Your task to perform on an android device: What's the weather going to be this weekend? Image 0: 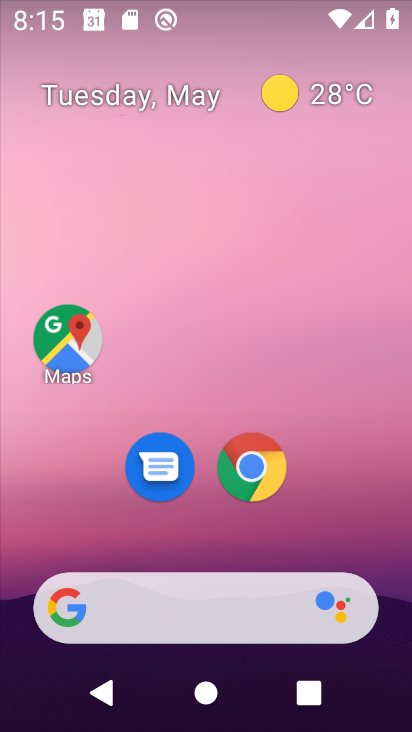
Step 0: click (325, 92)
Your task to perform on an android device: What's the weather going to be this weekend? Image 1: 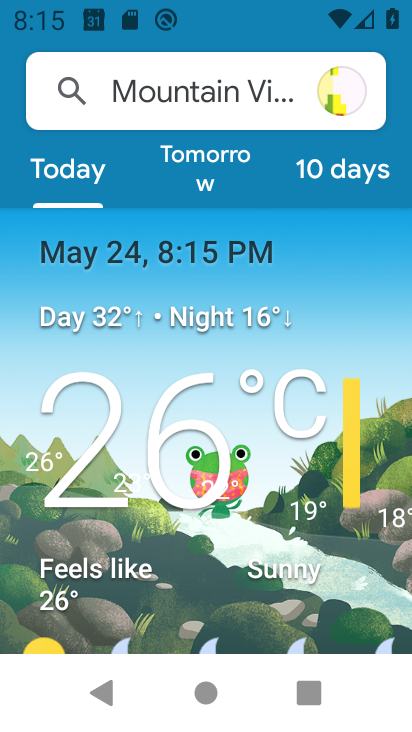
Step 1: click (337, 170)
Your task to perform on an android device: What's the weather going to be this weekend? Image 2: 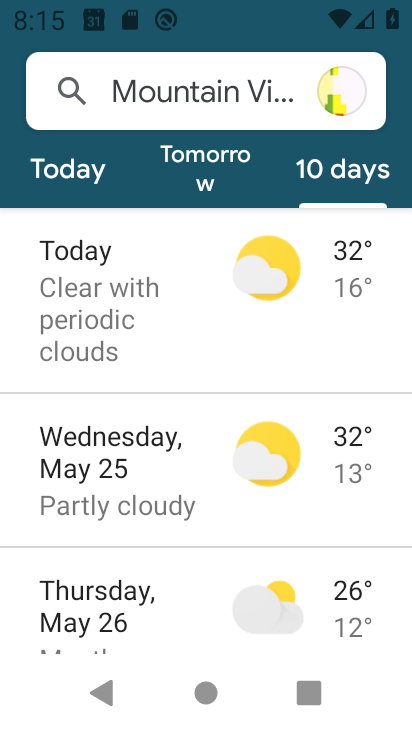
Step 2: task complete